Your task to perform on an android device: Is it going to rain today? Image 0: 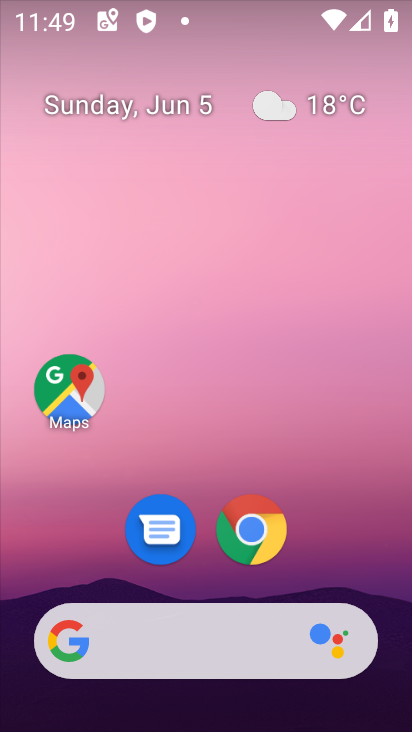
Step 0: click (347, 97)
Your task to perform on an android device: Is it going to rain today? Image 1: 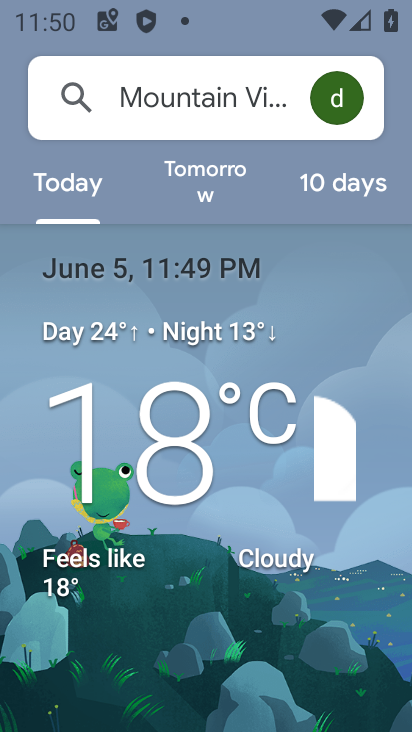
Step 1: click (217, 177)
Your task to perform on an android device: Is it going to rain today? Image 2: 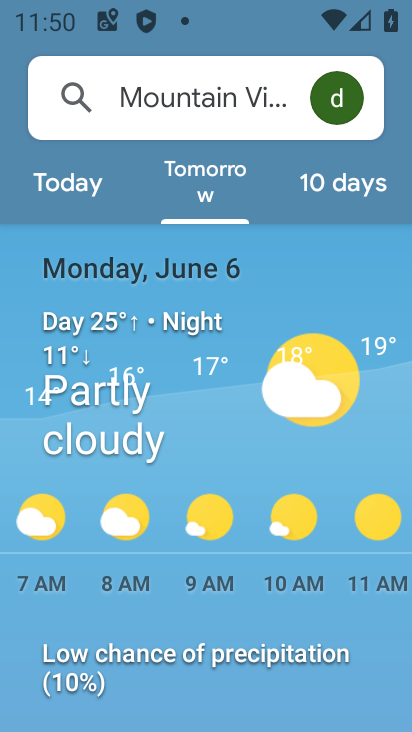
Step 2: task complete